Your task to perform on an android device: turn off location Image 0: 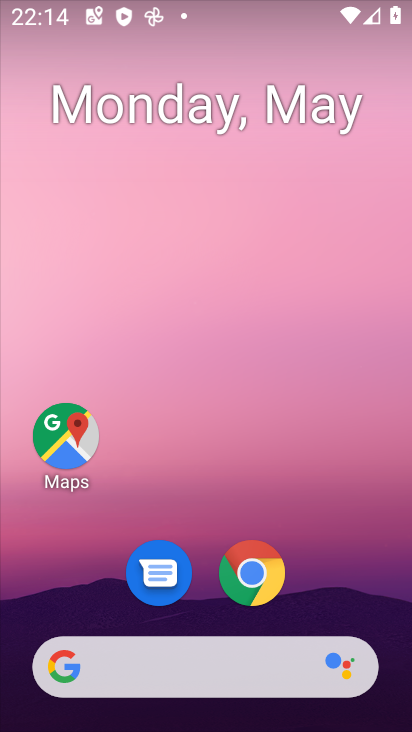
Step 0: drag from (312, 590) to (266, 30)
Your task to perform on an android device: turn off location Image 1: 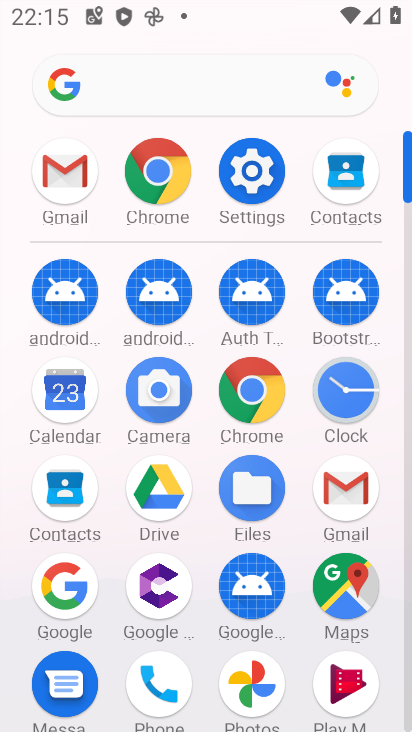
Step 1: click (248, 175)
Your task to perform on an android device: turn off location Image 2: 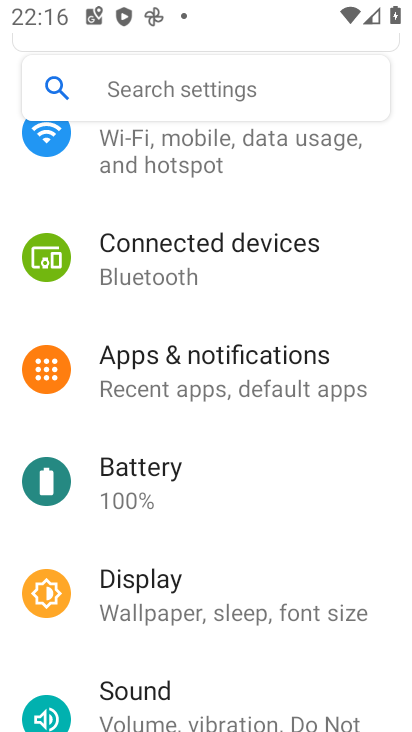
Step 2: drag from (186, 651) to (201, 386)
Your task to perform on an android device: turn off location Image 3: 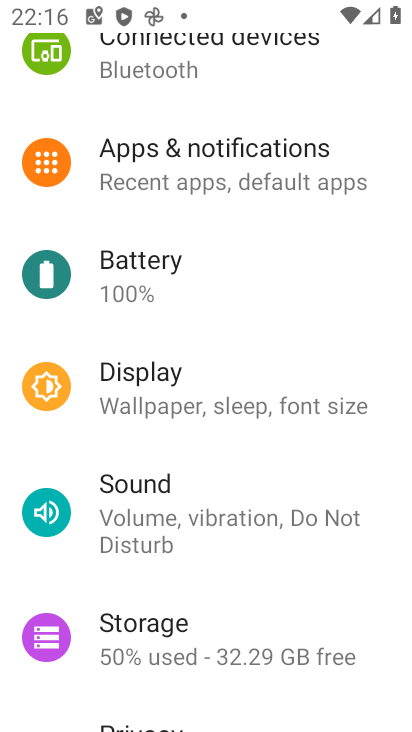
Step 3: drag from (145, 647) to (163, 298)
Your task to perform on an android device: turn off location Image 4: 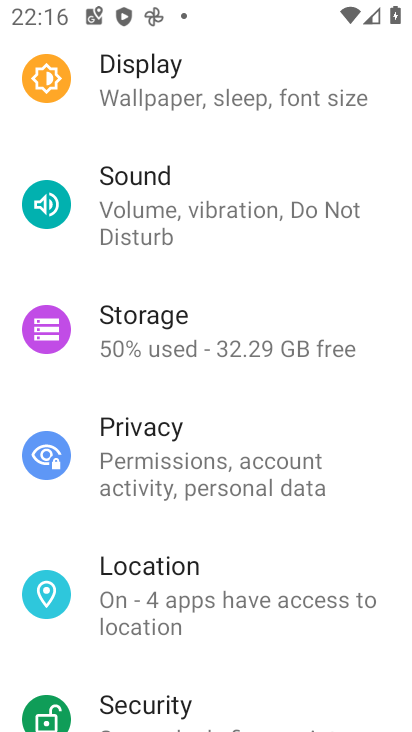
Step 4: click (194, 568)
Your task to perform on an android device: turn off location Image 5: 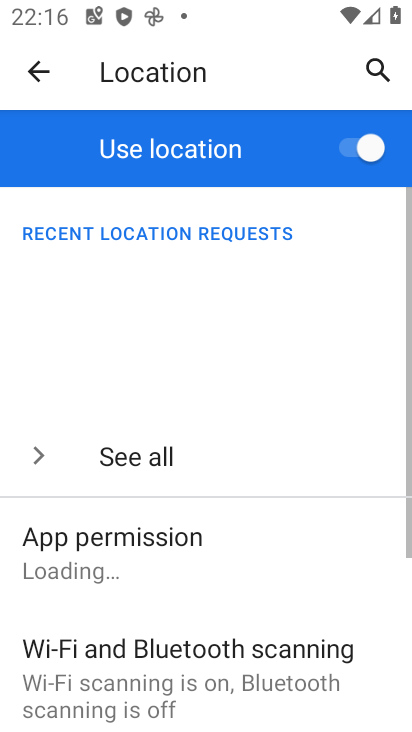
Step 5: task complete